Your task to perform on an android device: Open battery settings Image 0: 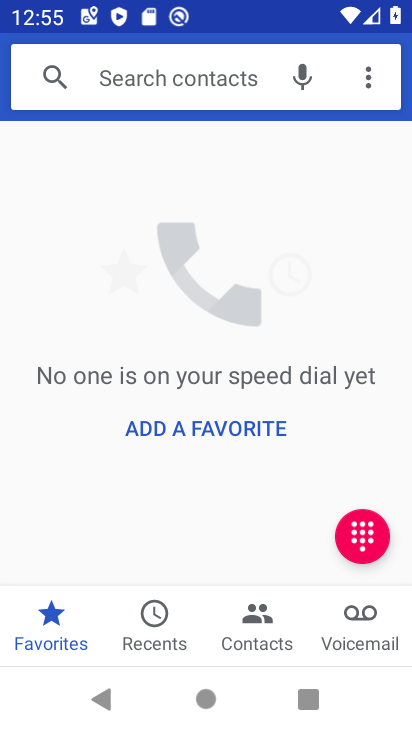
Step 0: press home button
Your task to perform on an android device: Open battery settings Image 1: 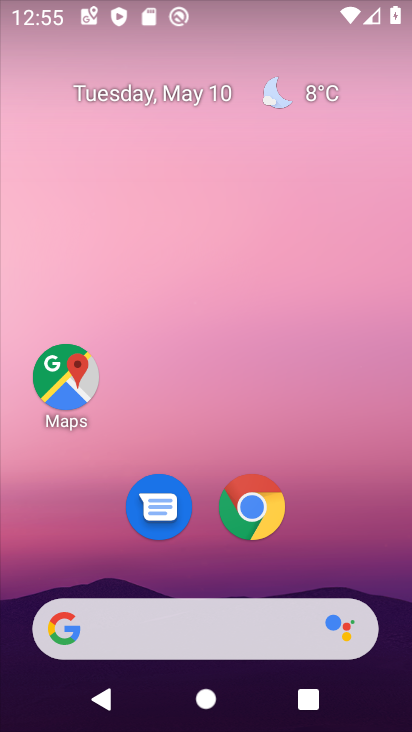
Step 1: drag from (227, 668) to (231, 213)
Your task to perform on an android device: Open battery settings Image 2: 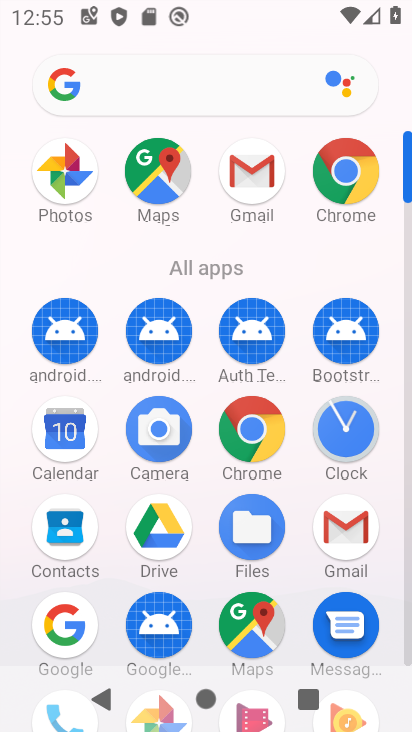
Step 2: drag from (19, 489) to (15, 203)
Your task to perform on an android device: Open battery settings Image 3: 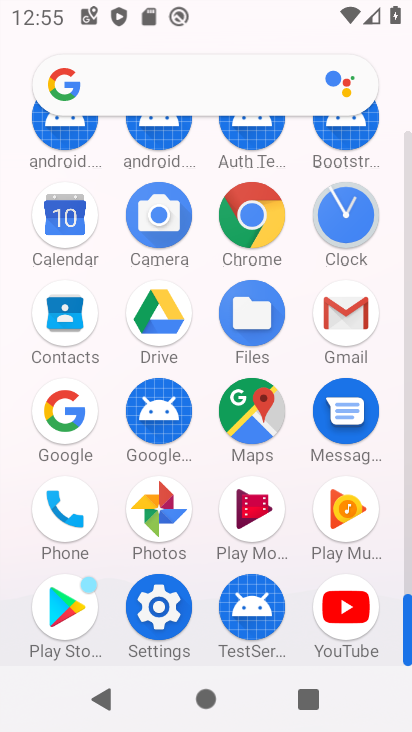
Step 3: click (160, 610)
Your task to perform on an android device: Open battery settings Image 4: 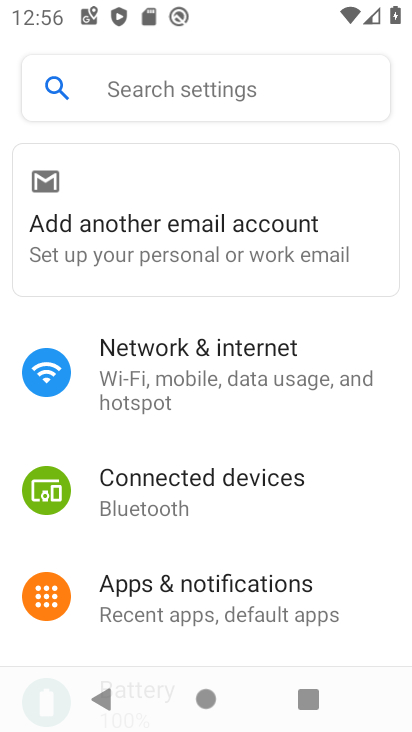
Step 4: drag from (255, 643) to (247, 312)
Your task to perform on an android device: Open battery settings Image 5: 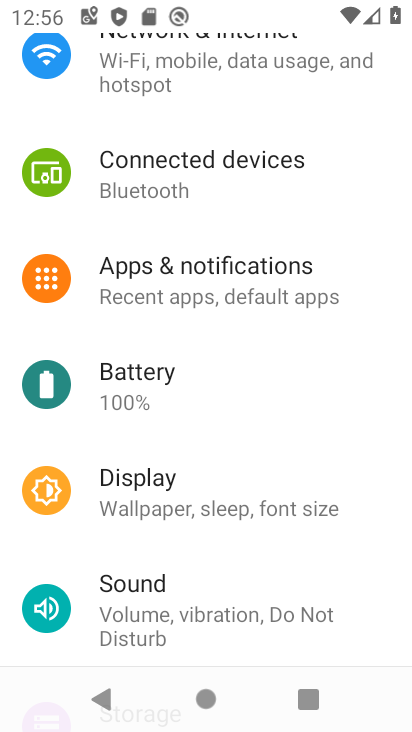
Step 5: click (119, 383)
Your task to perform on an android device: Open battery settings Image 6: 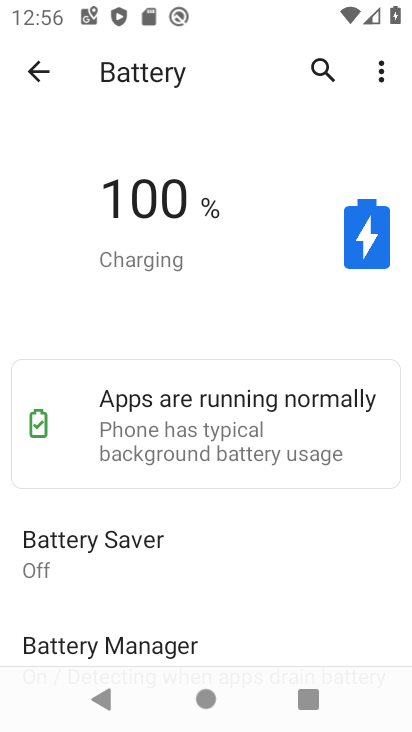
Step 6: task complete